Your task to perform on an android device: delete a single message in the gmail app Image 0: 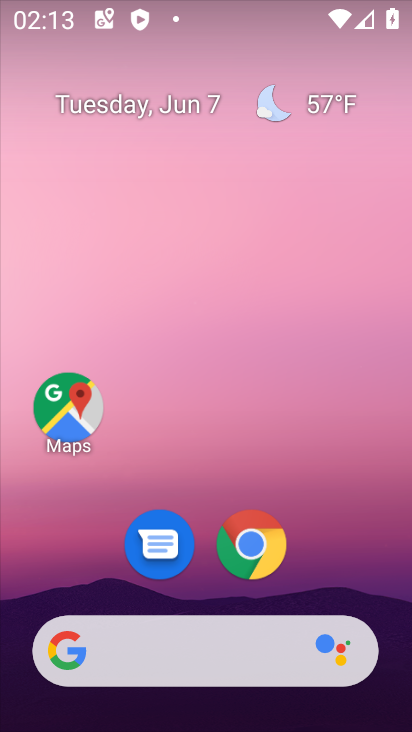
Step 0: drag from (306, 580) to (331, 220)
Your task to perform on an android device: delete a single message in the gmail app Image 1: 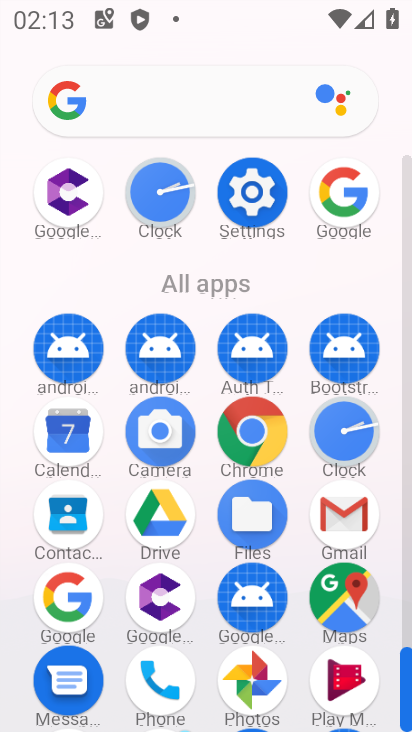
Step 1: click (329, 505)
Your task to perform on an android device: delete a single message in the gmail app Image 2: 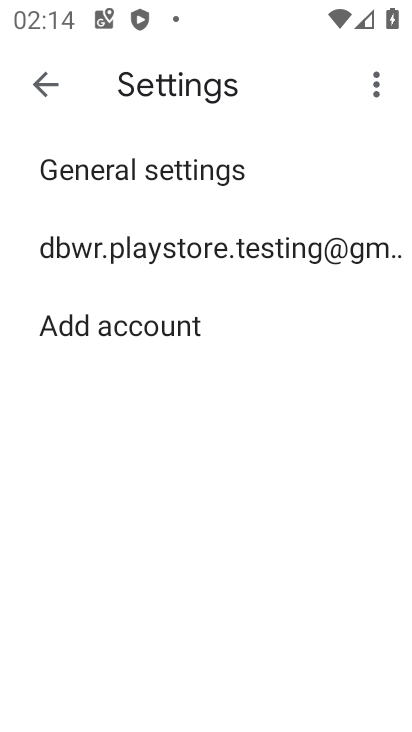
Step 2: click (56, 94)
Your task to perform on an android device: delete a single message in the gmail app Image 3: 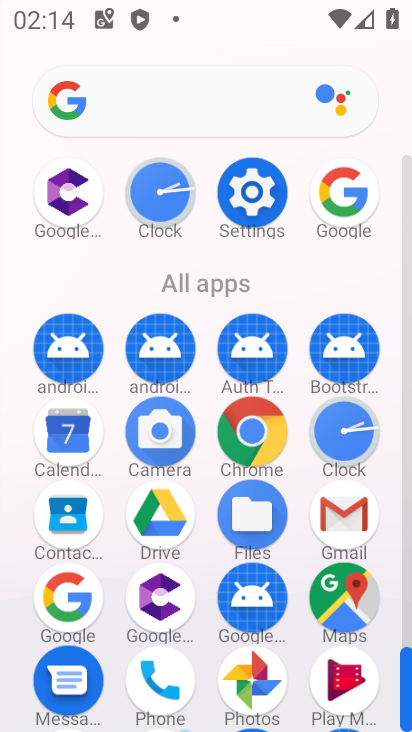
Step 3: click (344, 498)
Your task to perform on an android device: delete a single message in the gmail app Image 4: 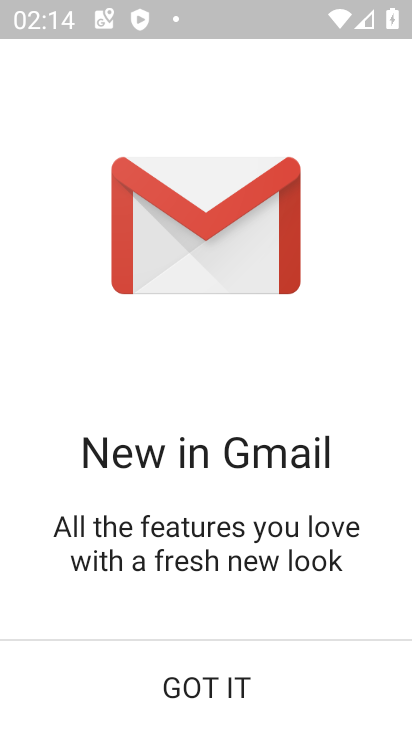
Step 4: click (209, 679)
Your task to perform on an android device: delete a single message in the gmail app Image 5: 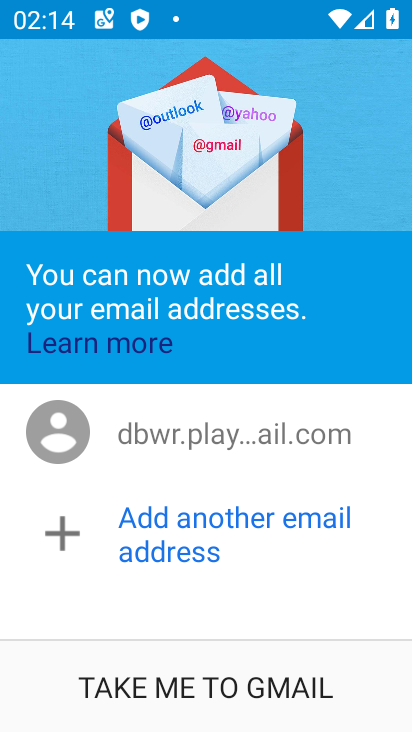
Step 5: click (209, 679)
Your task to perform on an android device: delete a single message in the gmail app Image 6: 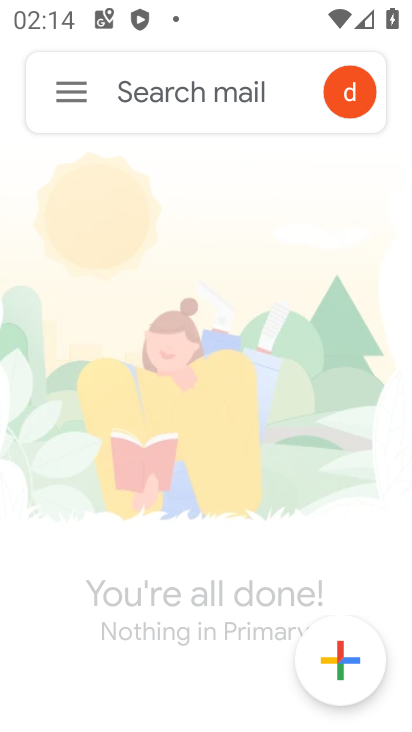
Step 6: click (69, 106)
Your task to perform on an android device: delete a single message in the gmail app Image 7: 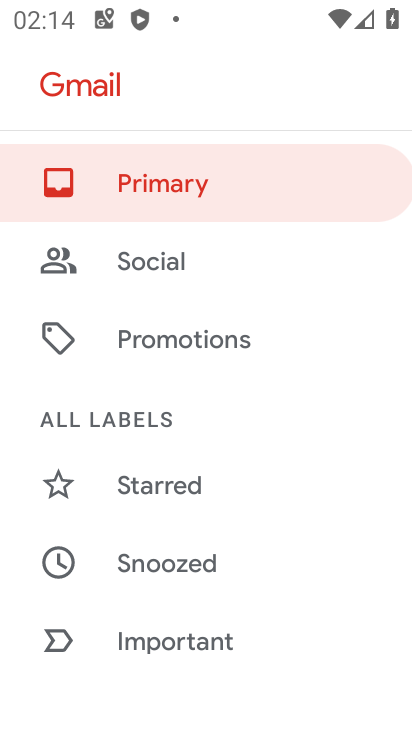
Step 7: drag from (276, 612) to (301, 354)
Your task to perform on an android device: delete a single message in the gmail app Image 8: 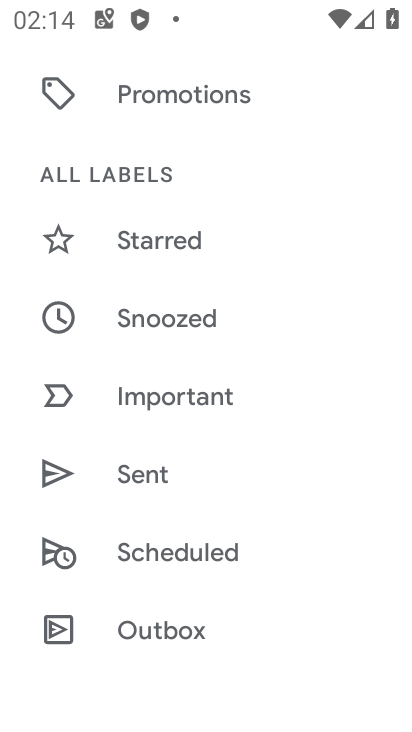
Step 8: drag from (205, 604) to (226, 271)
Your task to perform on an android device: delete a single message in the gmail app Image 9: 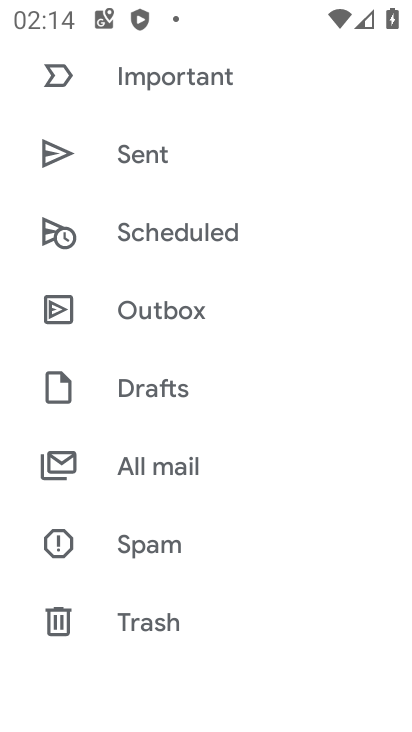
Step 9: click (168, 482)
Your task to perform on an android device: delete a single message in the gmail app Image 10: 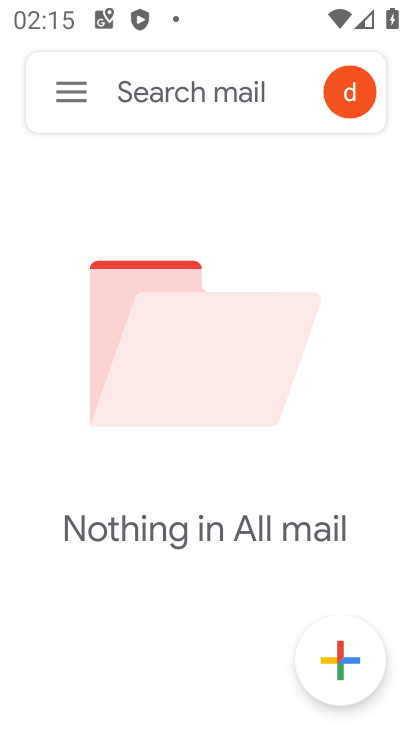
Step 10: task complete